Your task to perform on an android device: Find the nearest electronics store that's open now Image 0: 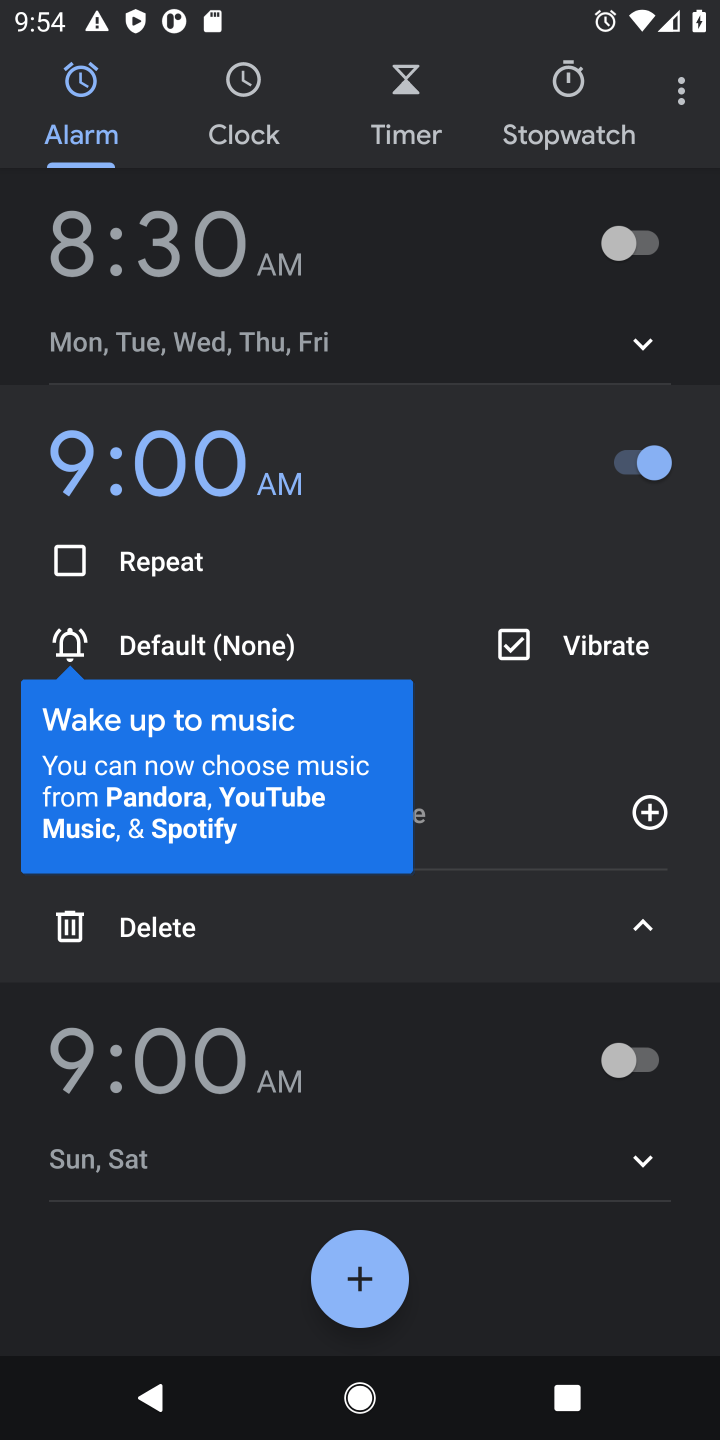
Step 0: press home button
Your task to perform on an android device: Find the nearest electronics store that's open now Image 1: 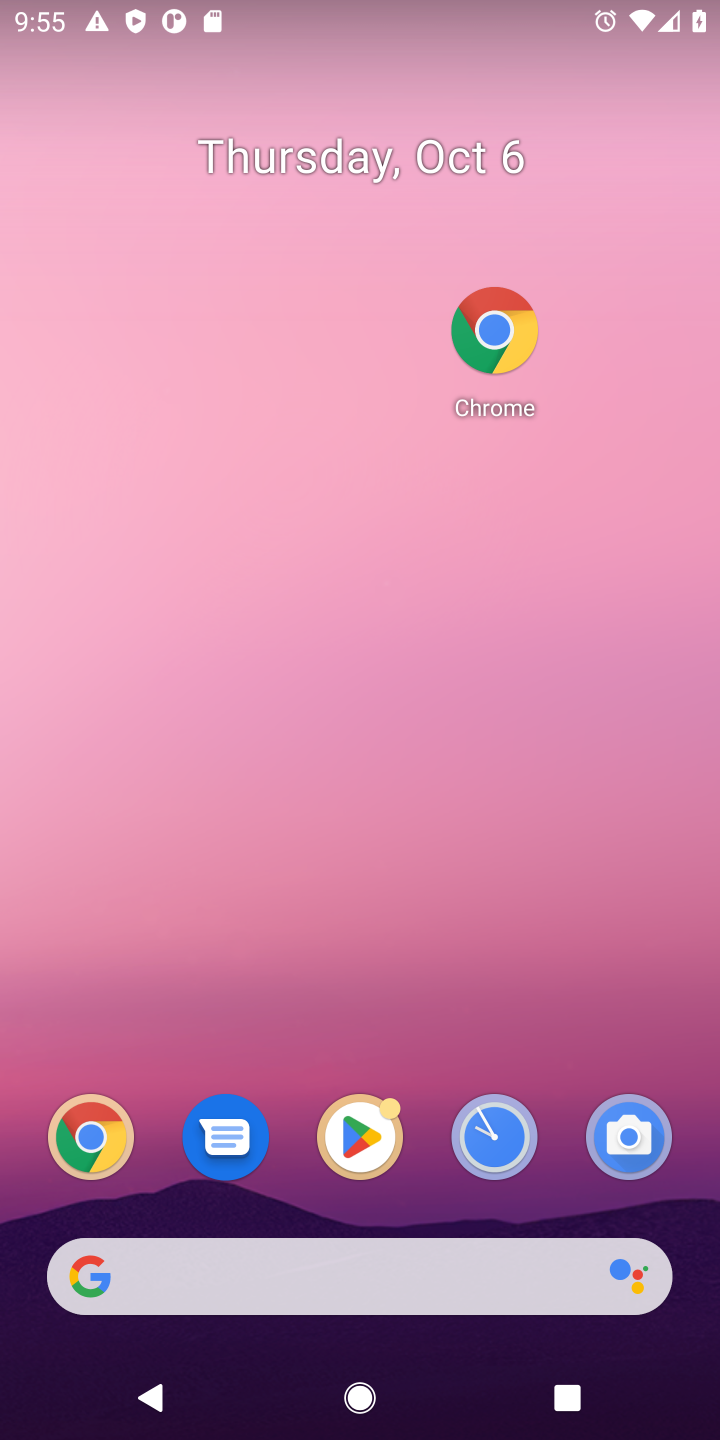
Step 1: click (92, 1139)
Your task to perform on an android device: Find the nearest electronics store that's open now Image 2: 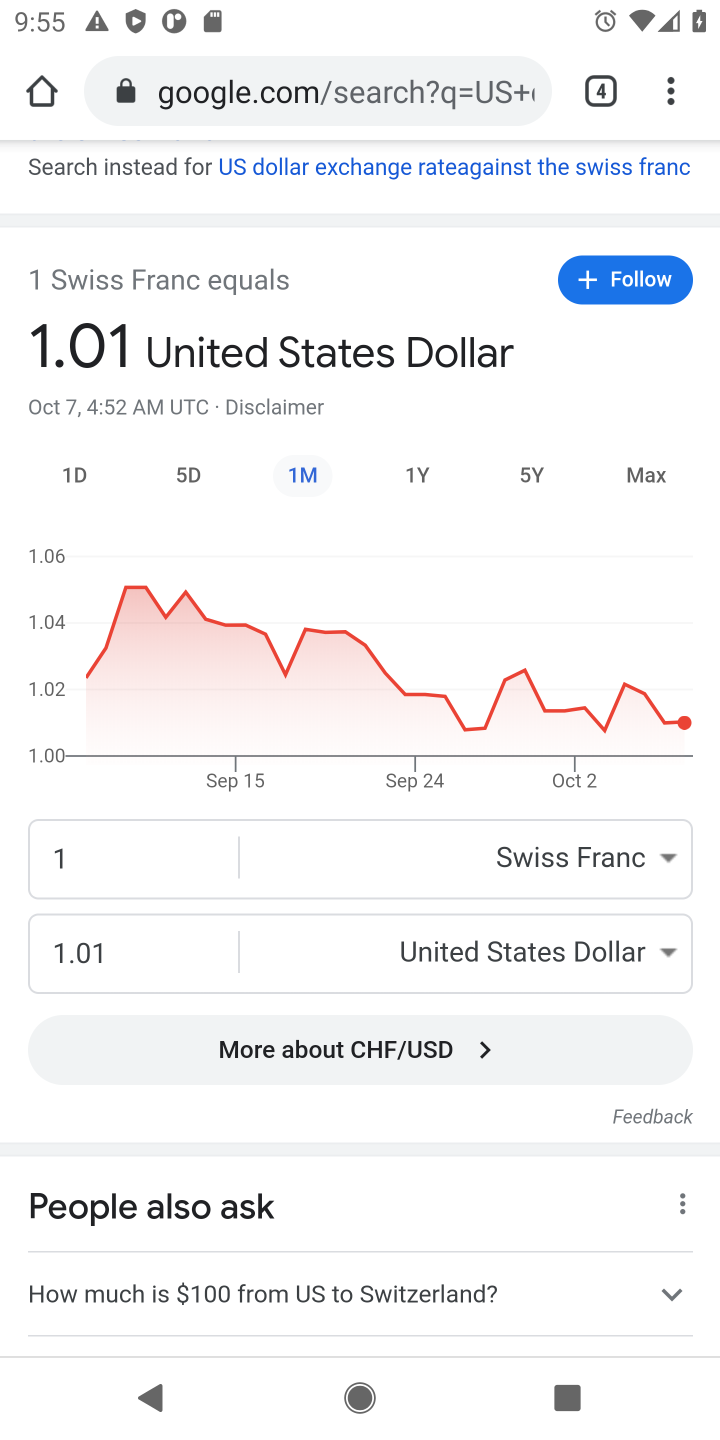
Step 2: click (335, 94)
Your task to perform on an android device: Find the nearest electronics store that's open now Image 3: 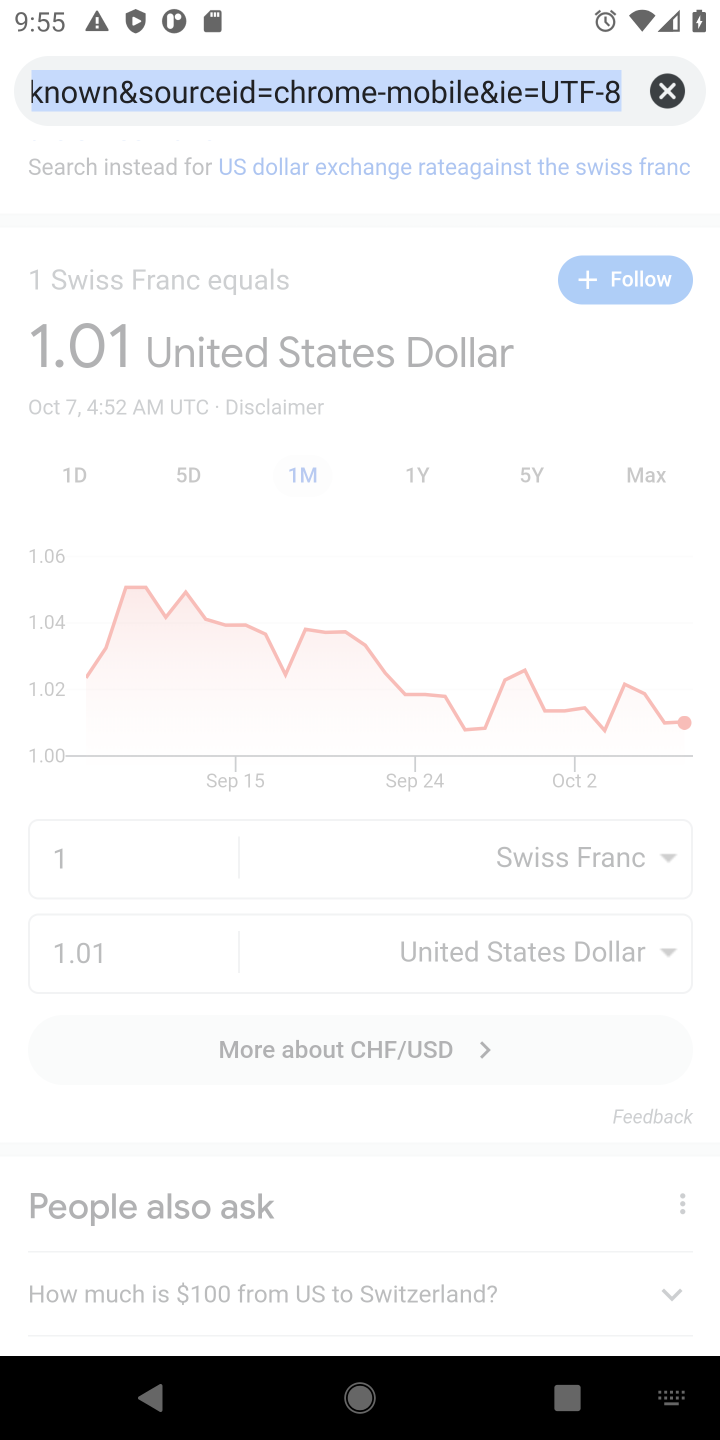
Step 3: click (652, 93)
Your task to perform on an android device: Find the nearest electronics store that's open now Image 4: 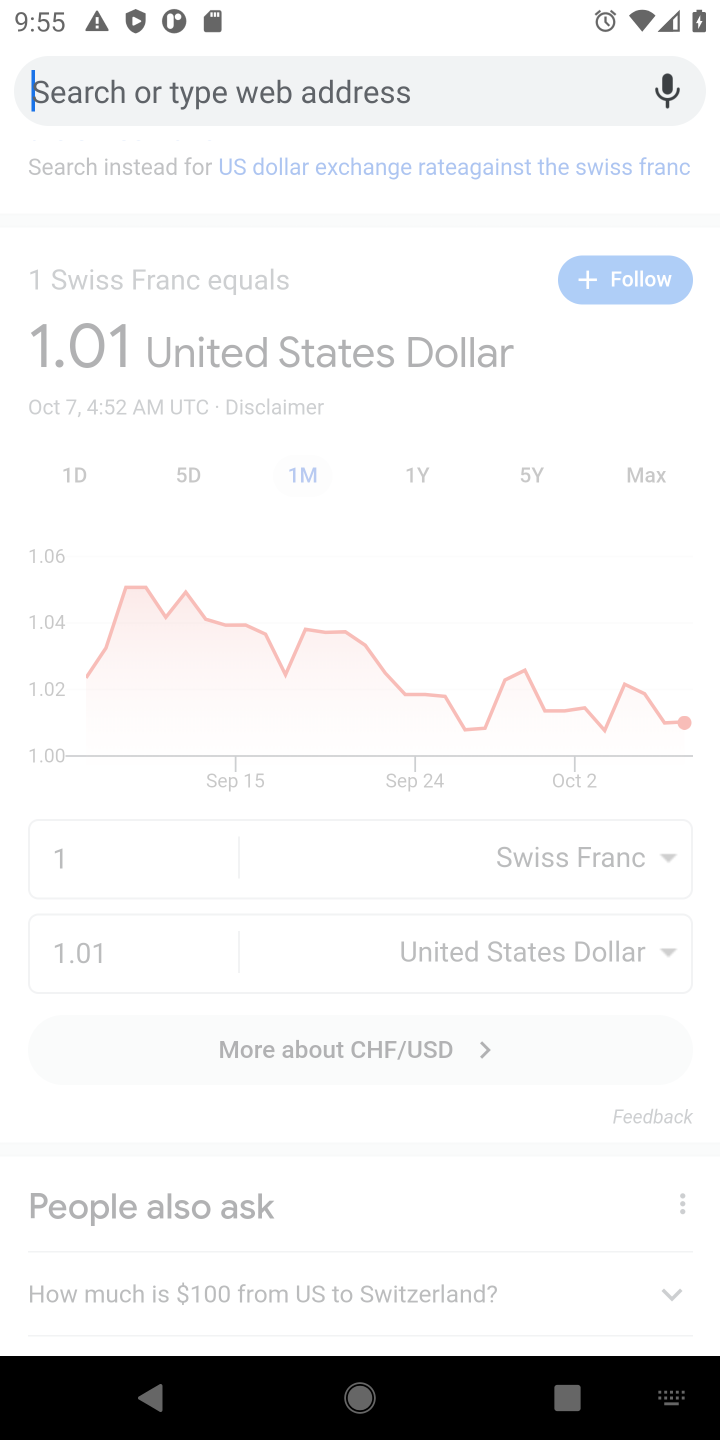
Step 4: type " nearest electronics store that's open now"
Your task to perform on an android device: Find the nearest electronics store that's open now Image 5: 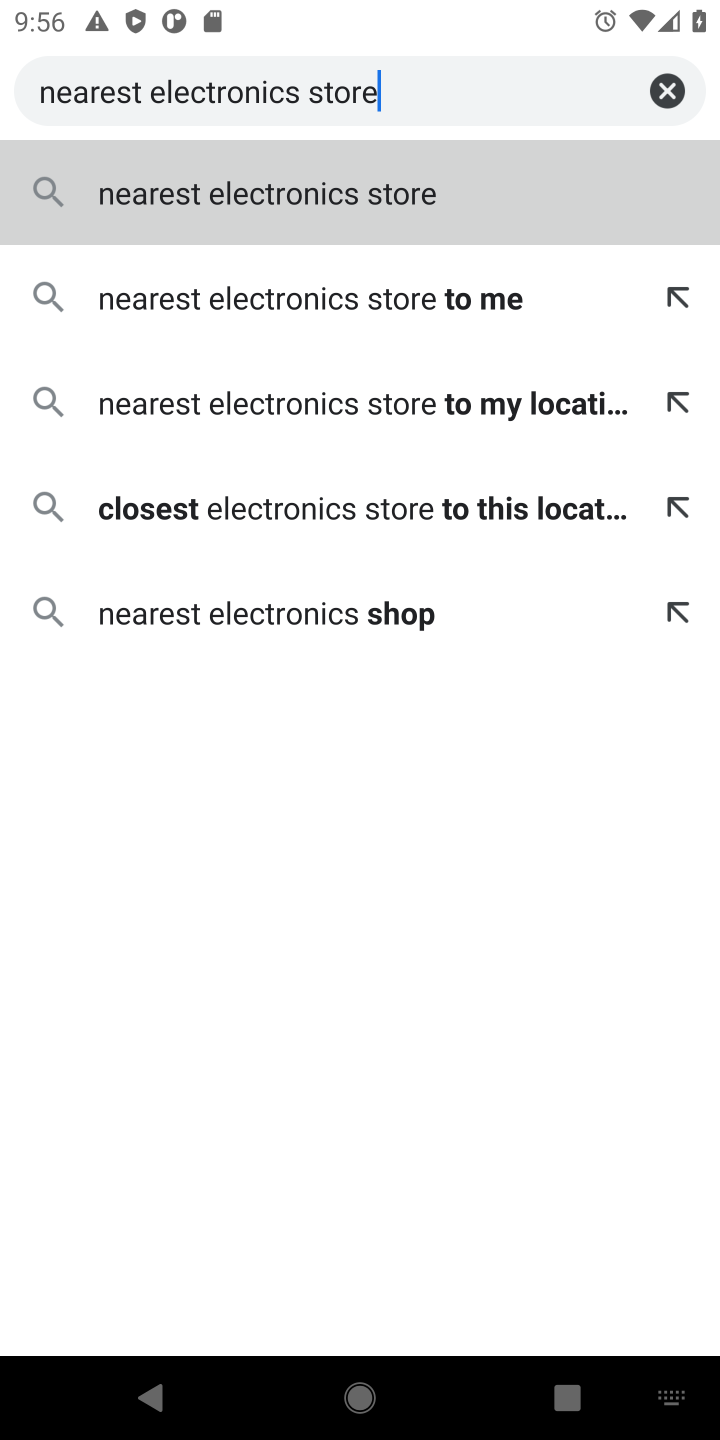
Step 5: click (287, 299)
Your task to perform on an android device: Find the nearest electronics store that's open now Image 6: 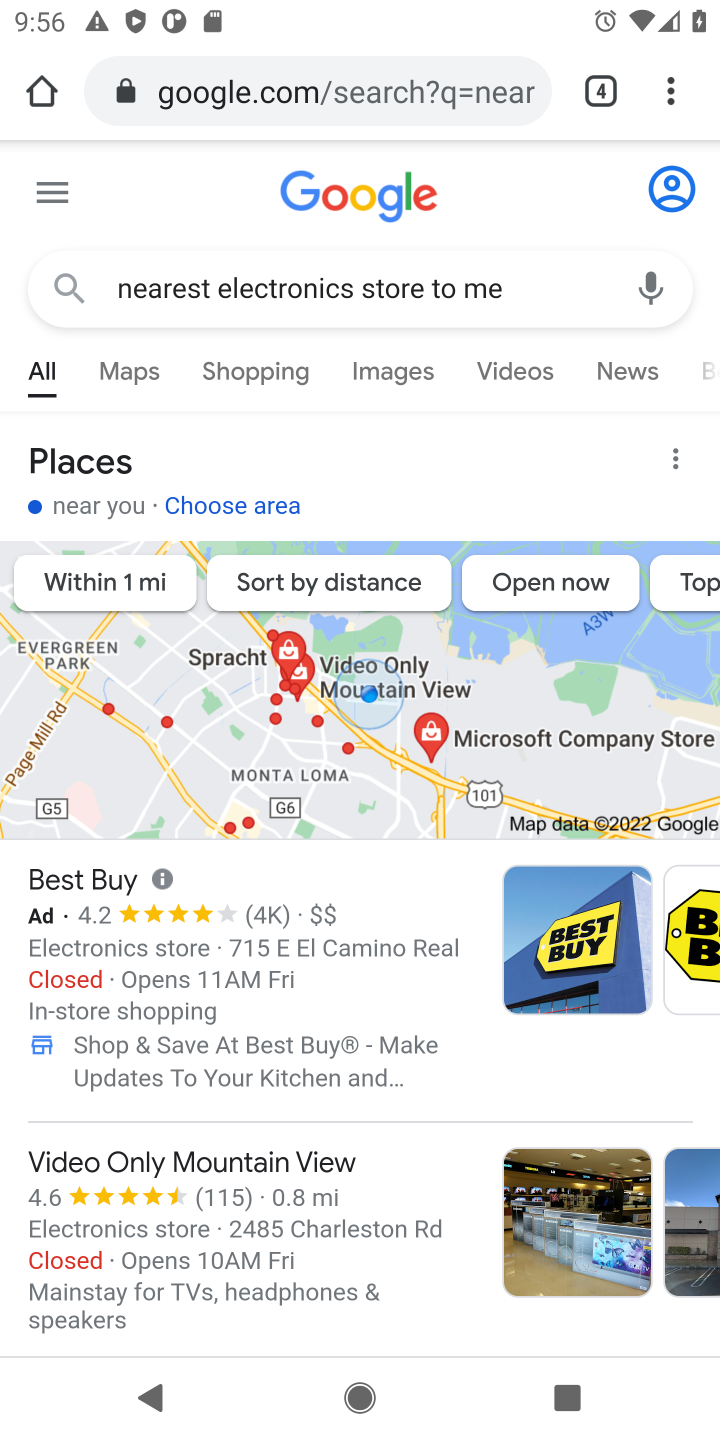
Step 6: drag from (258, 999) to (253, 396)
Your task to perform on an android device: Find the nearest electronics store that's open now Image 7: 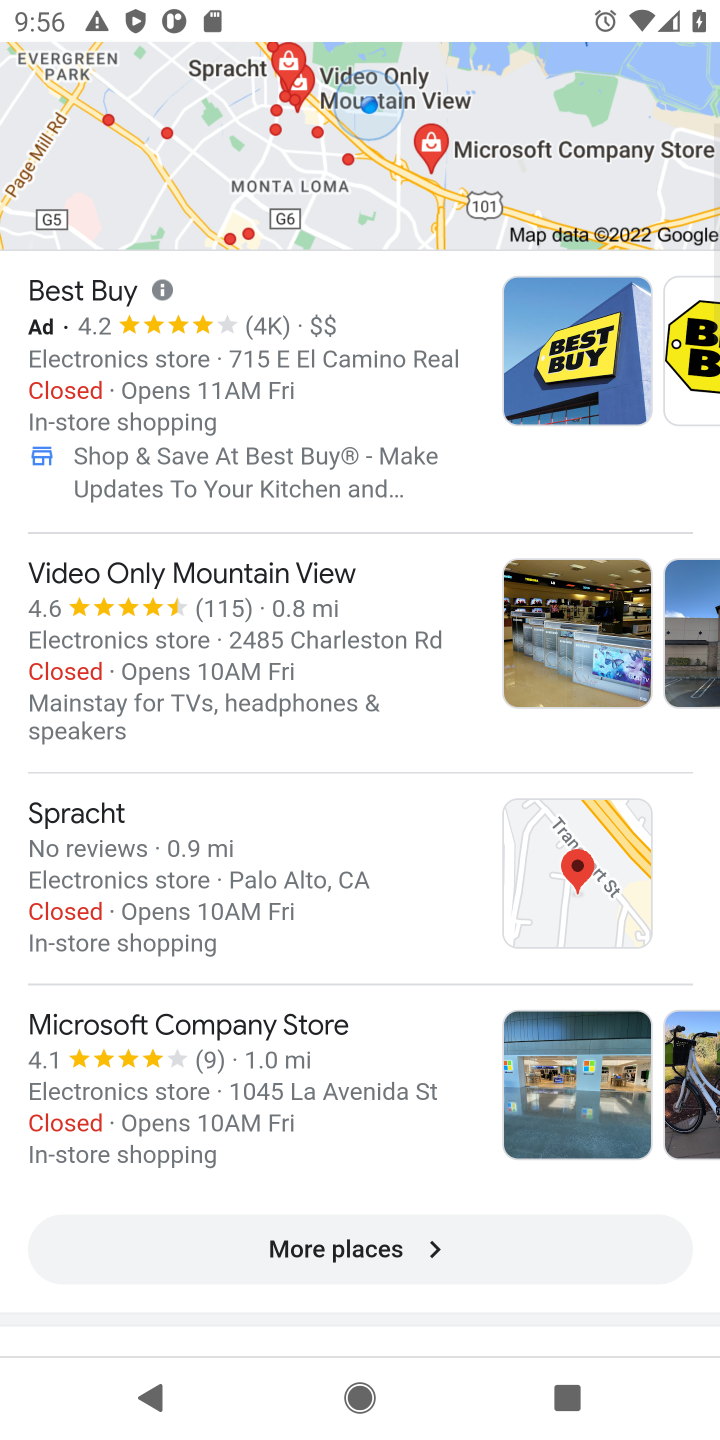
Step 7: drag from (233, 1014) to (262, 383)
Your task to perform on an android device: Find the nearest electronics store that's open now Image 8: 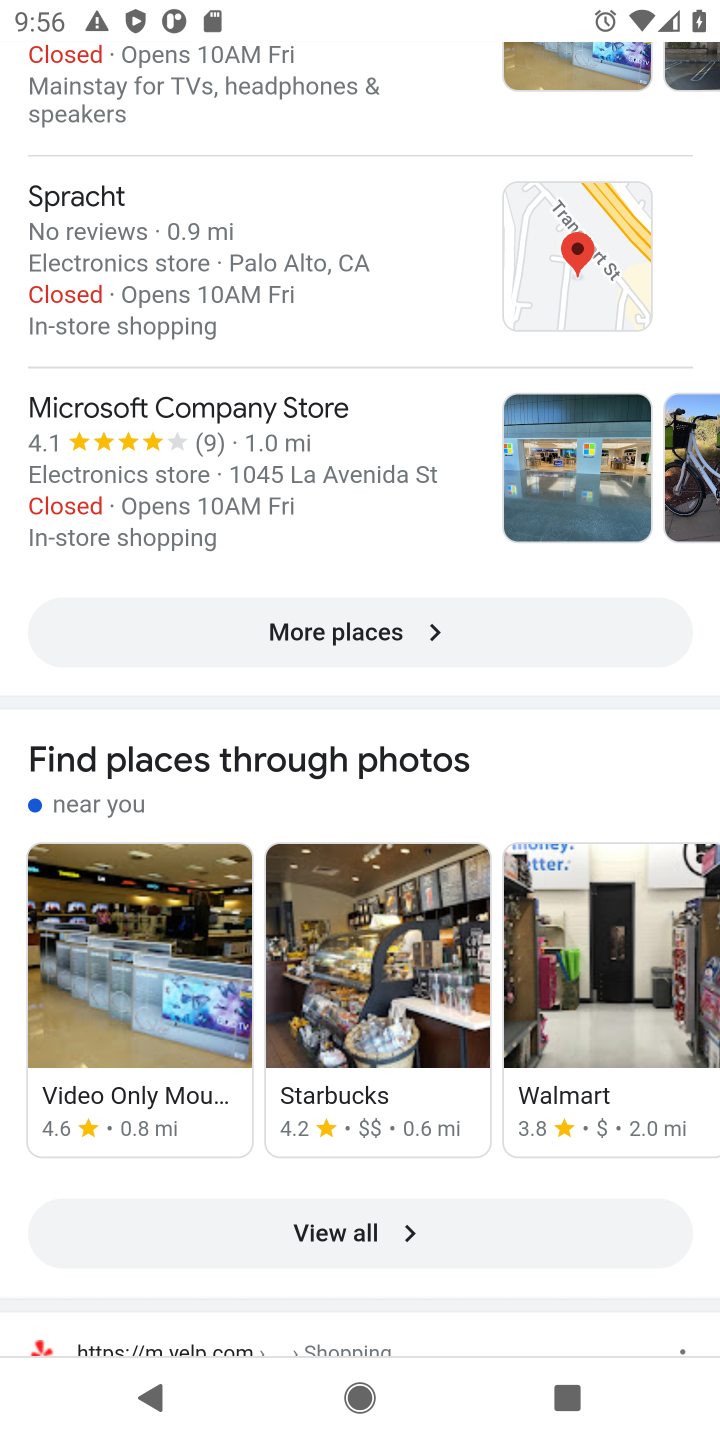
Step 8: click (298, 631)
Your task to perform on an android device: Find the nearest electronics store that's open now Image 9: 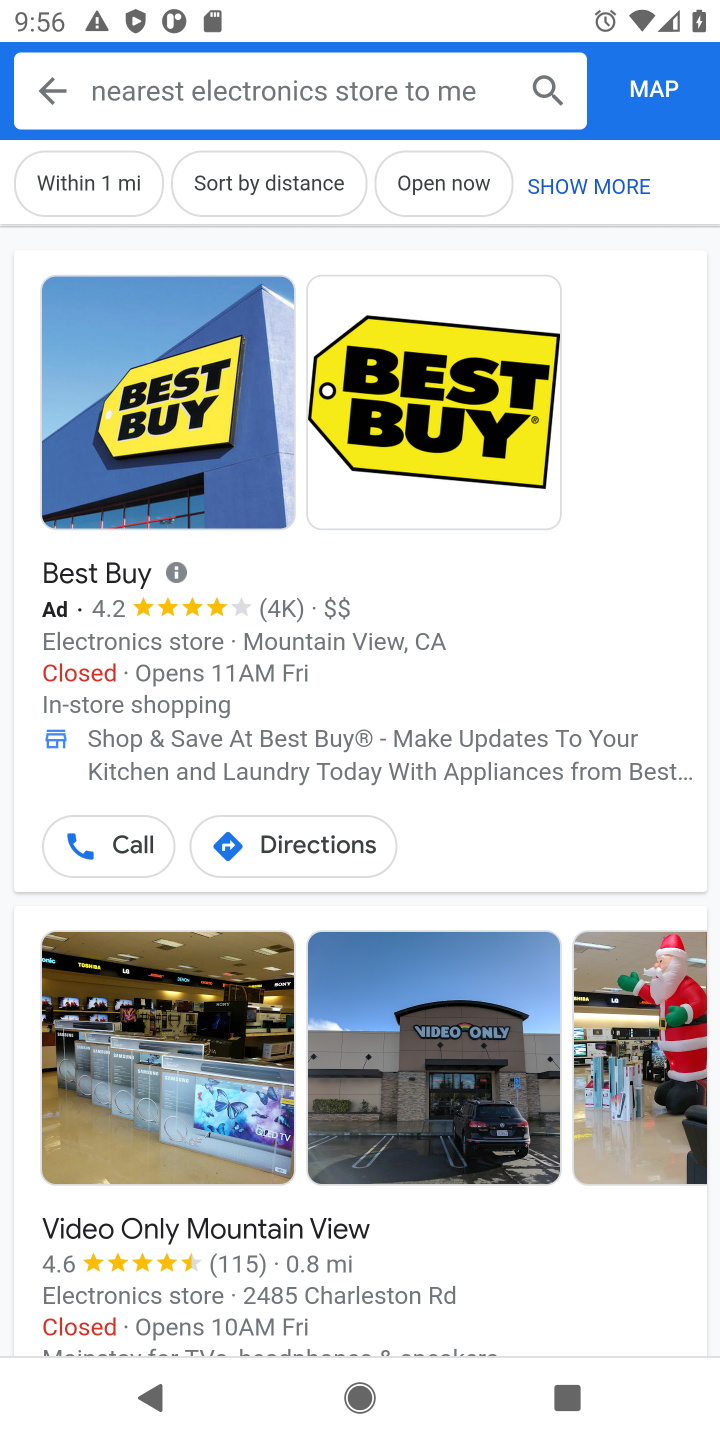
Step 9: drag from (188, 921) to (242, 231)
Your task to perform on an android device: Find the nearest electronics store that's open now Image 10: 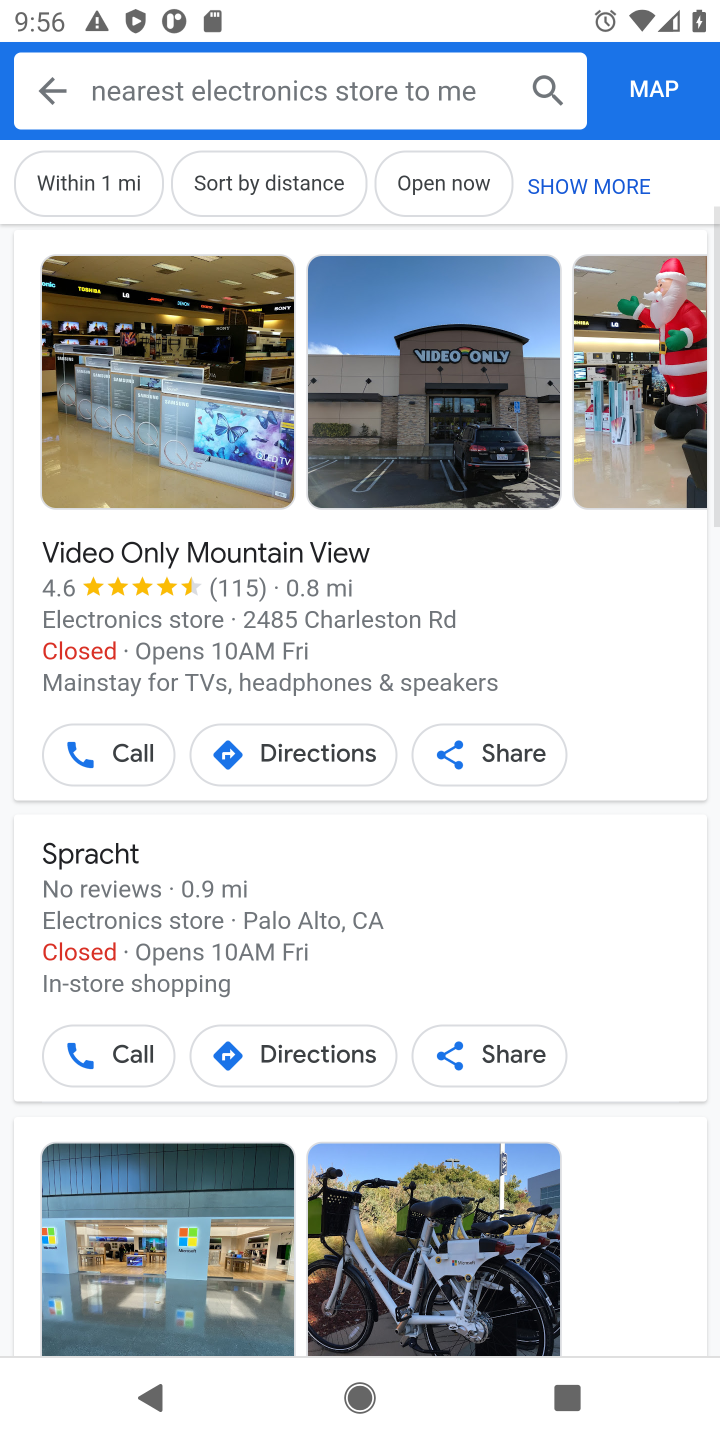
Step 10: drag from (206, 940) to (259, 420)
Your task to perform on an android device: Find the nearest electronics store that's open now Image 11: 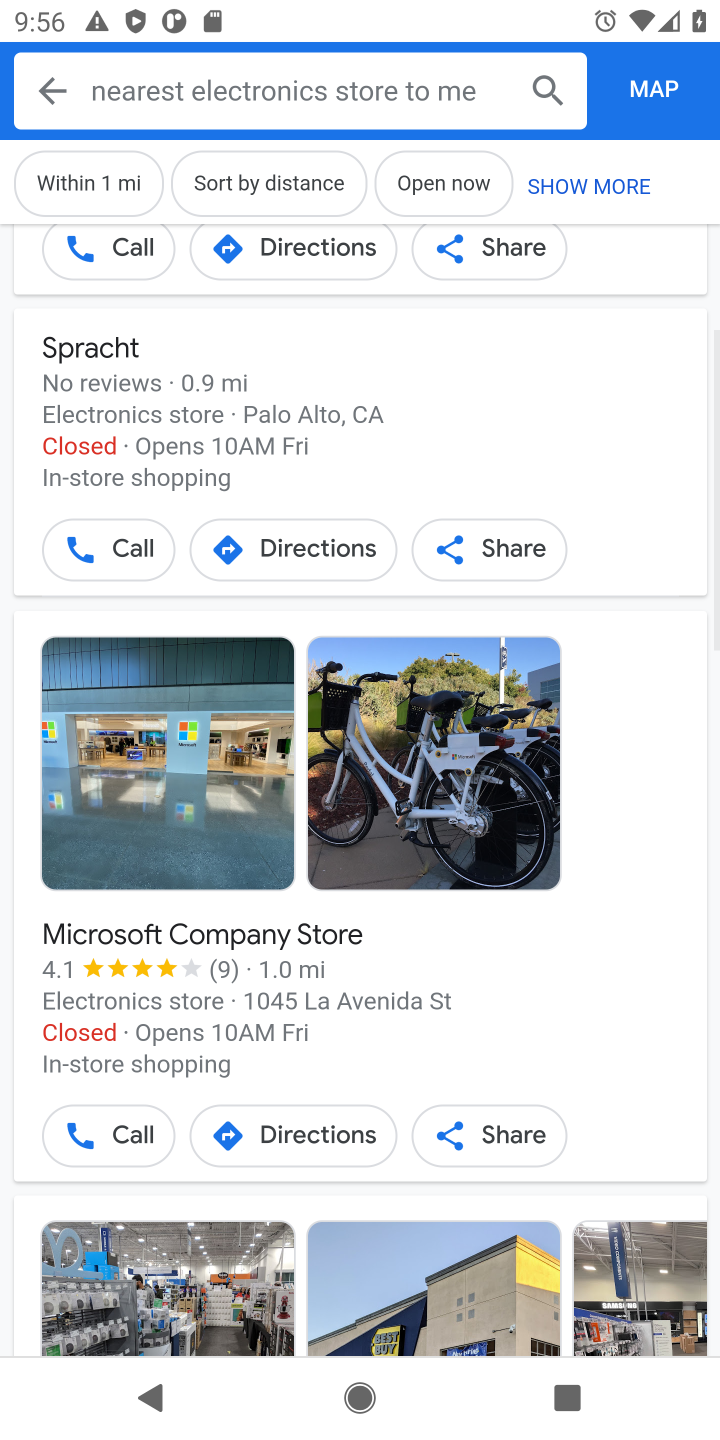
Step 11: drag from (224, 1010) to (272, 366)
Your task to perform on an android device: Find the nearest electronics store that's open now Image 12: 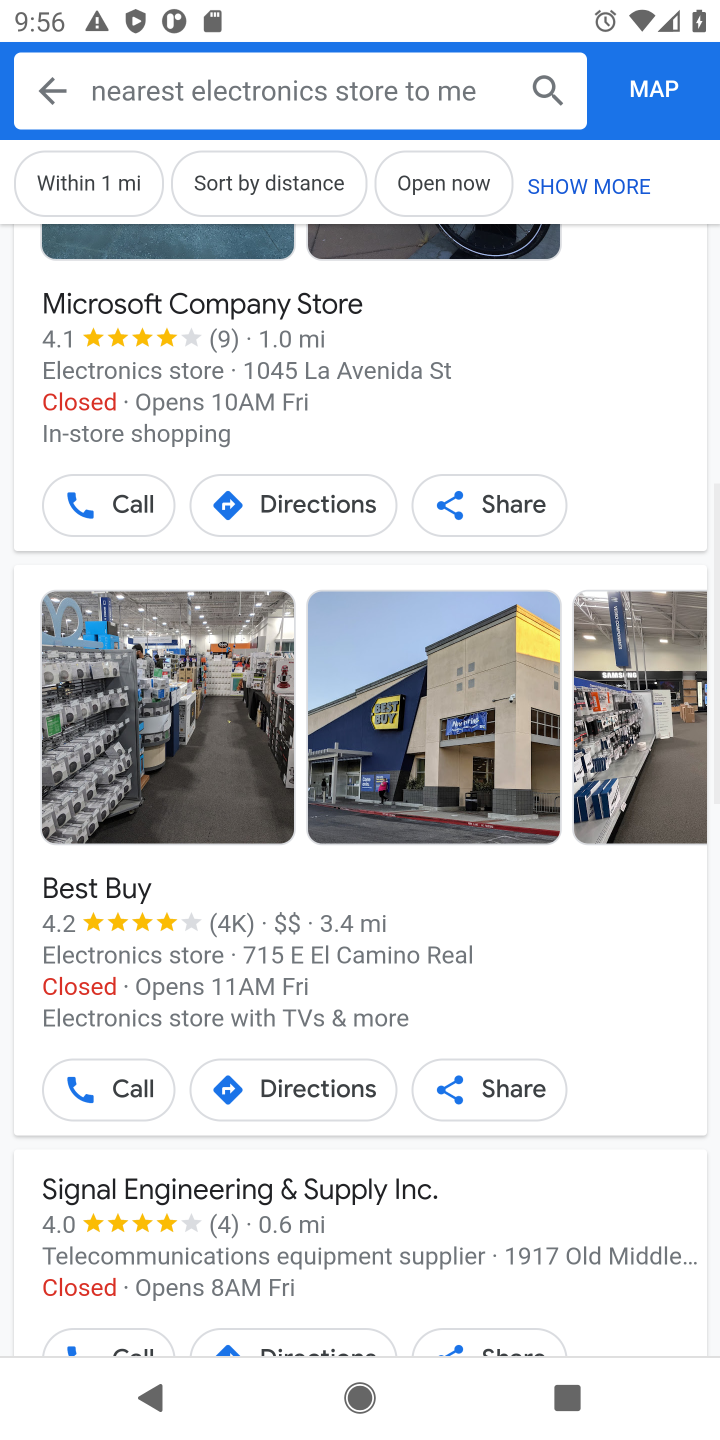
Step 12: drag from (246, 1037) to (265, 500)
Your task to perform on an android device: Find the nearest electronics store that's open now Image 13: 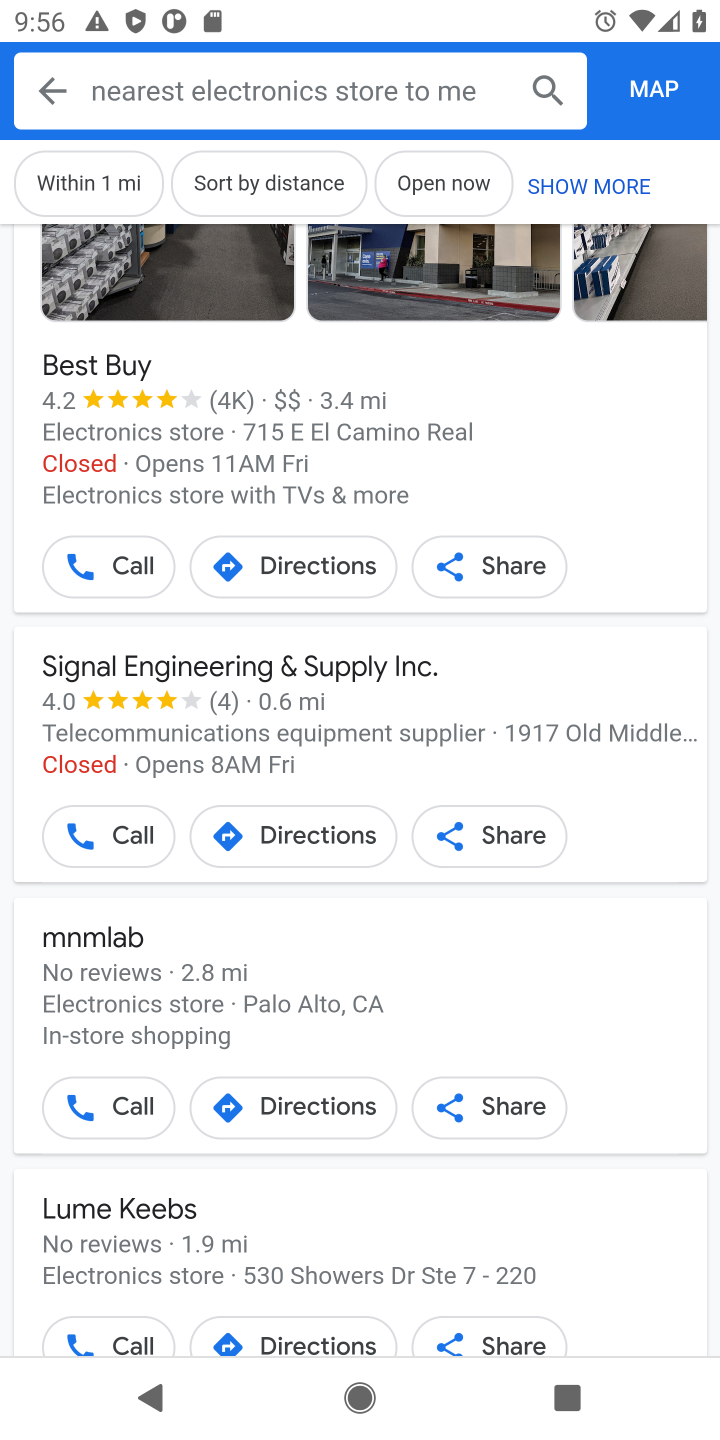
Step 13: drag from (225, 1026) to (262, 526)
Your task to perform on an android device: Find the nearest electronics store that's open now Image 14: 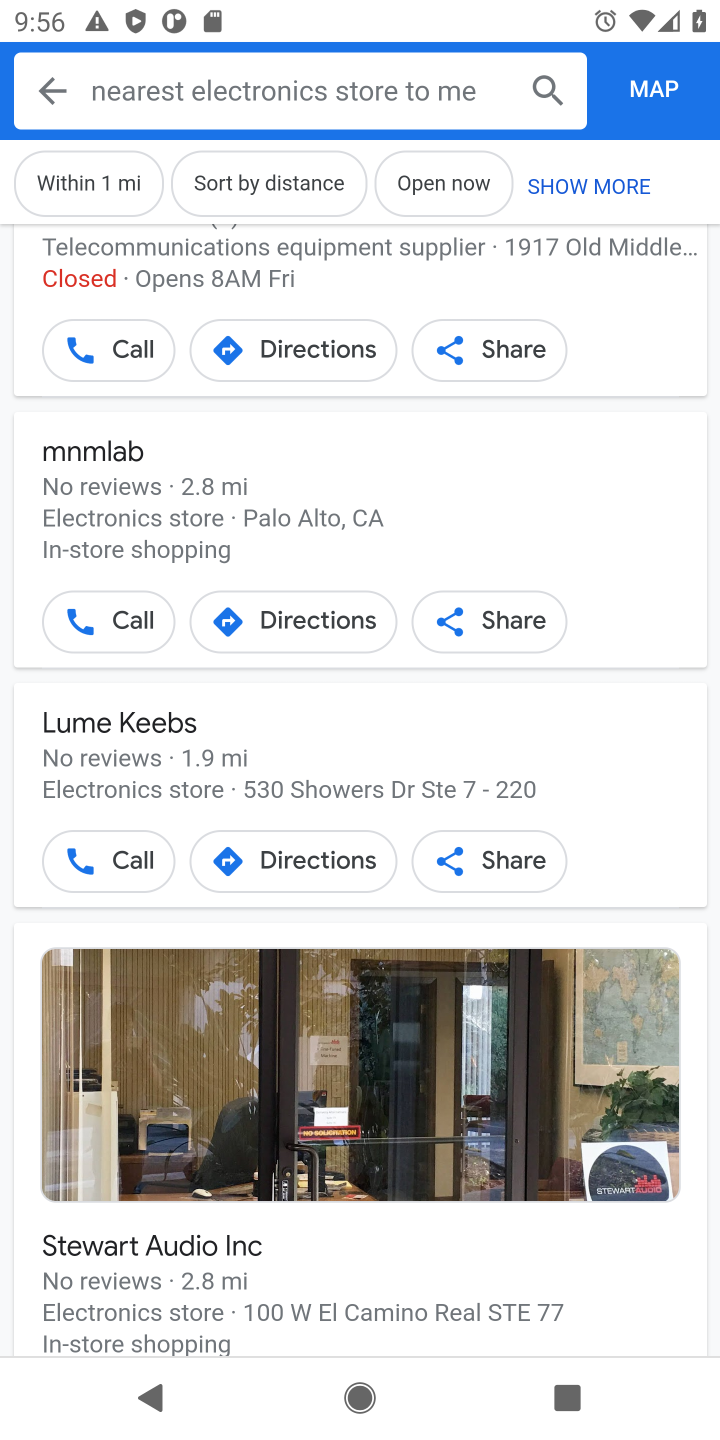
Step 14: drag from (212, 1113) to (254, 459)
Your task to perform on an android device: Find the nearest electronics store that's open now Image 15: 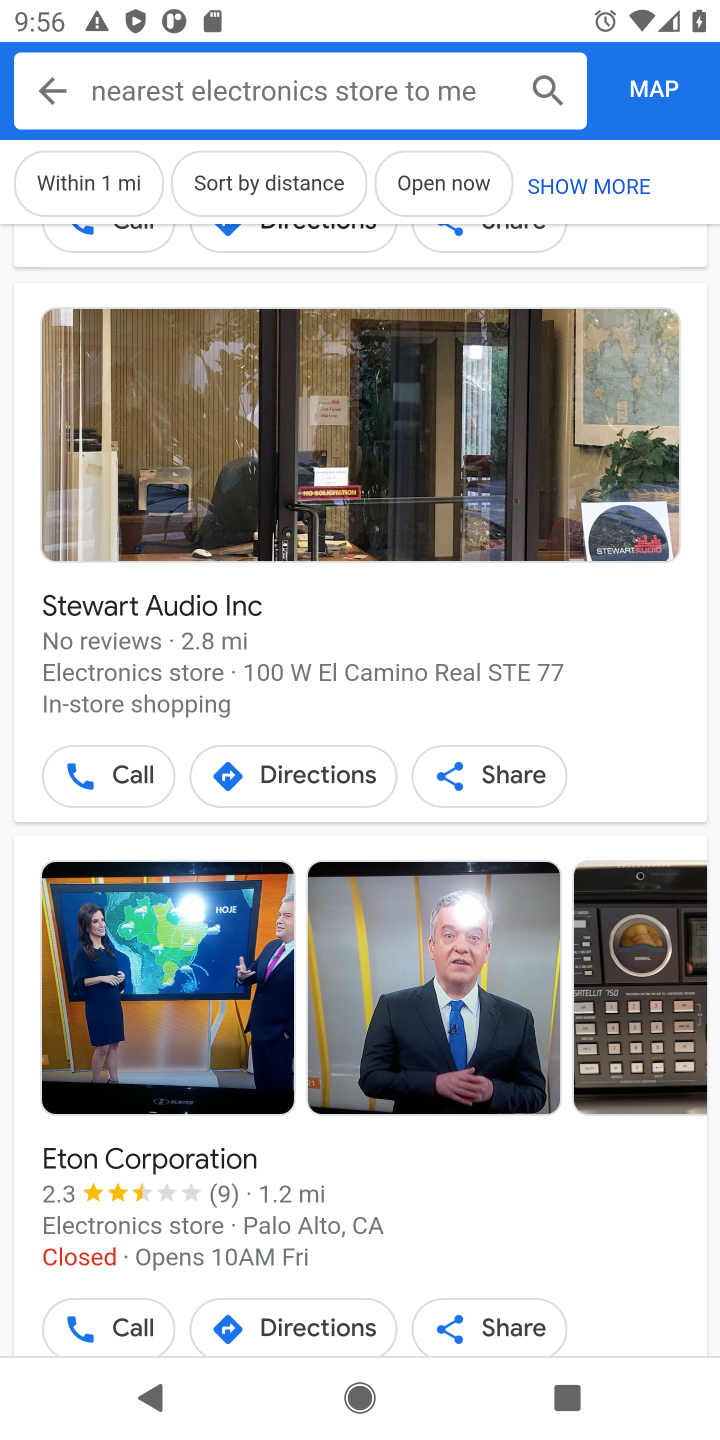
Step 15: drag from (178, 1035) to (198, 481)
Your task to perform on an android device: Find the nearest electronics store that's open now Image 16: 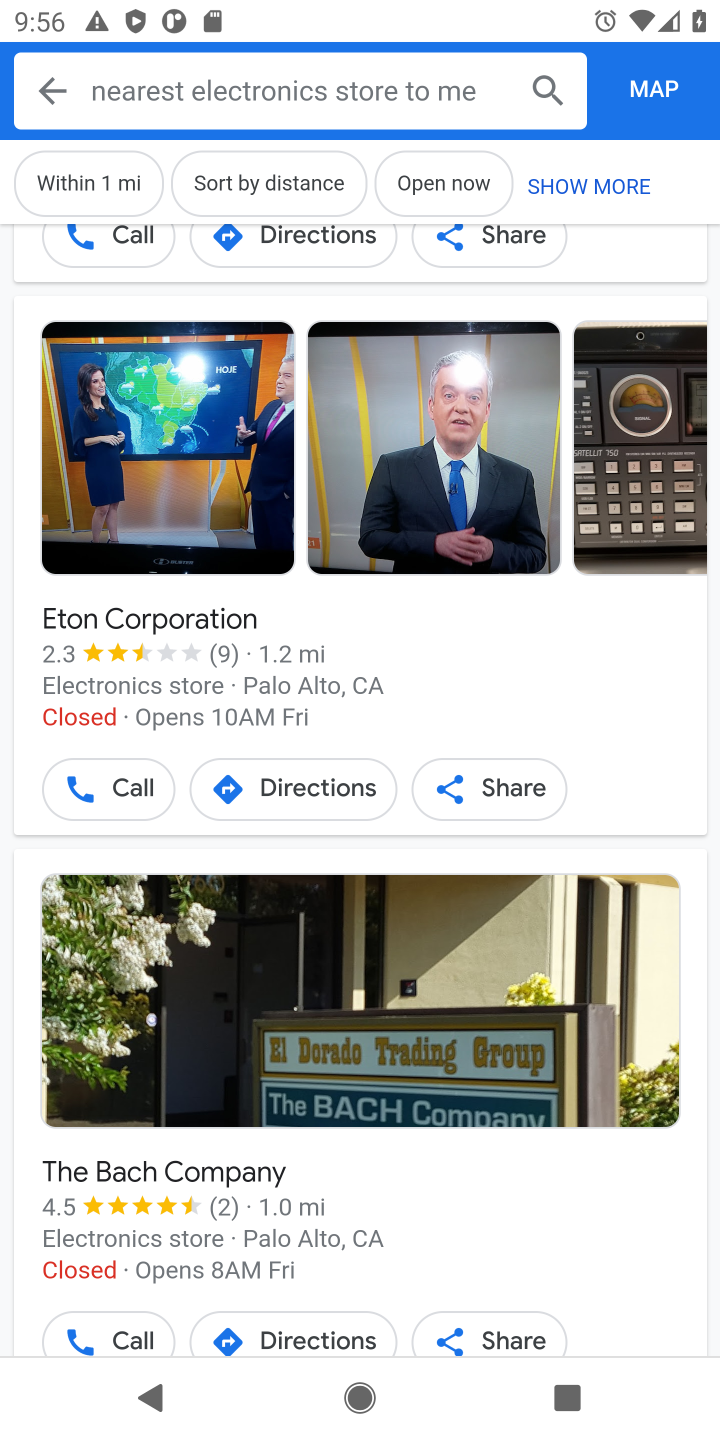
Step 16: drag from (181, 1200) to (187, 517)
Your task to perform on an android device: Find the nearest electronics store that's open now Image 17: 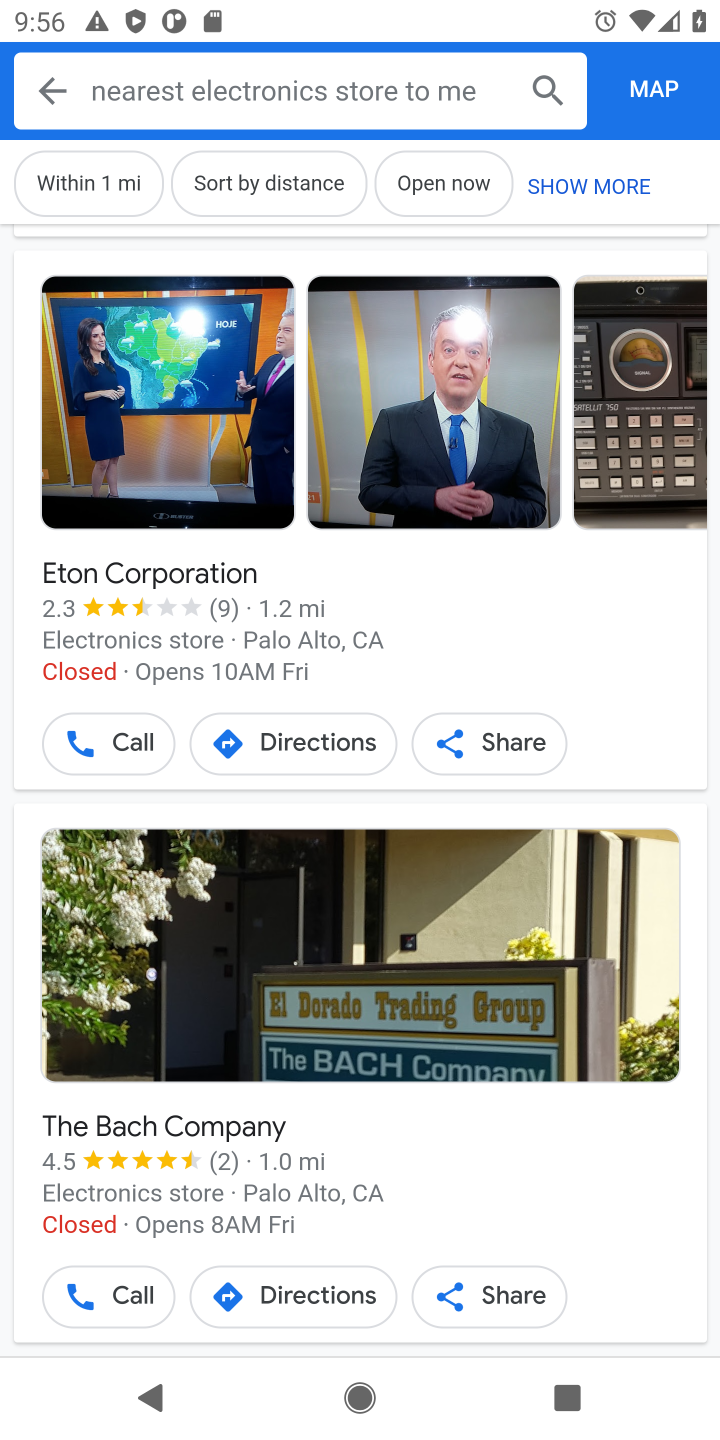
Step 17: click (484, 93)
Your task to perform on an android device: Find the nearest electronics store that's open now Image 18: 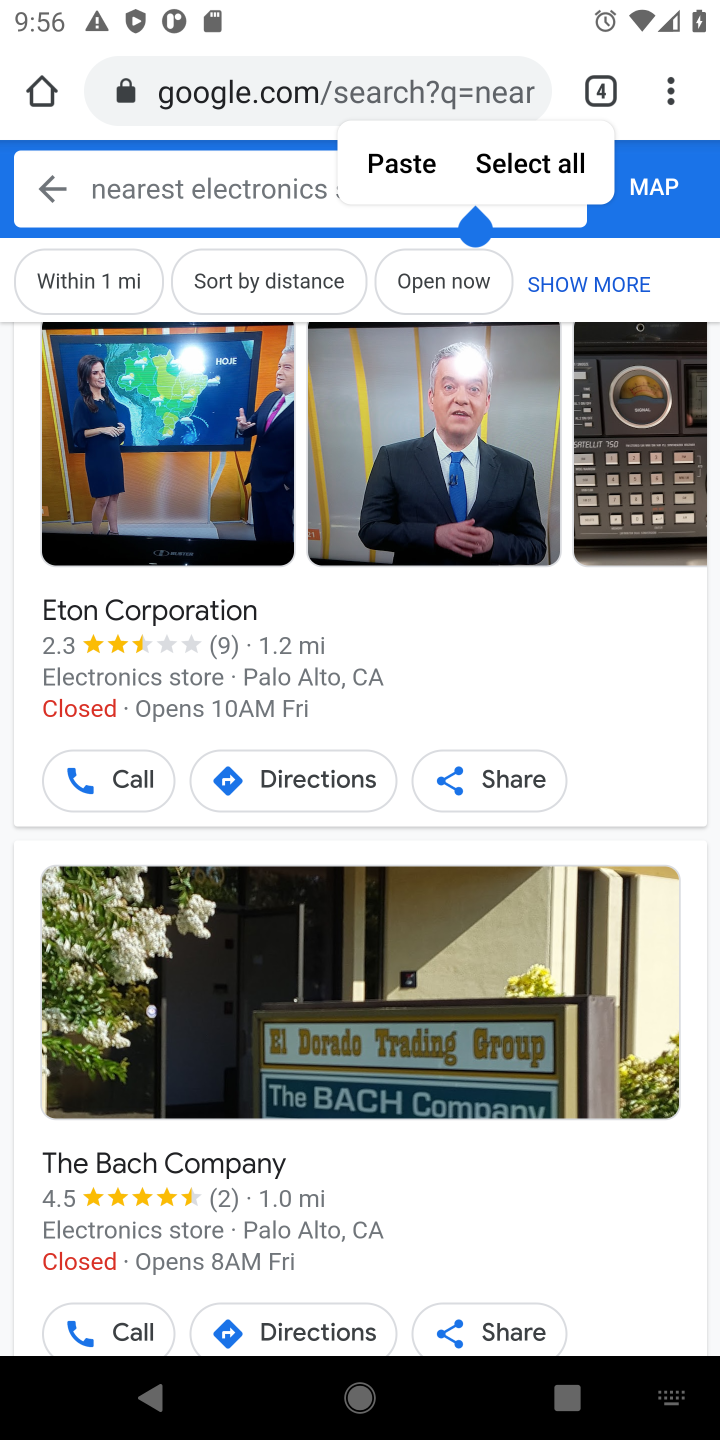
Step 18: click (259, 189)
Your task to perform on an android device: Find the nearest electronics store that's open now Image 19: 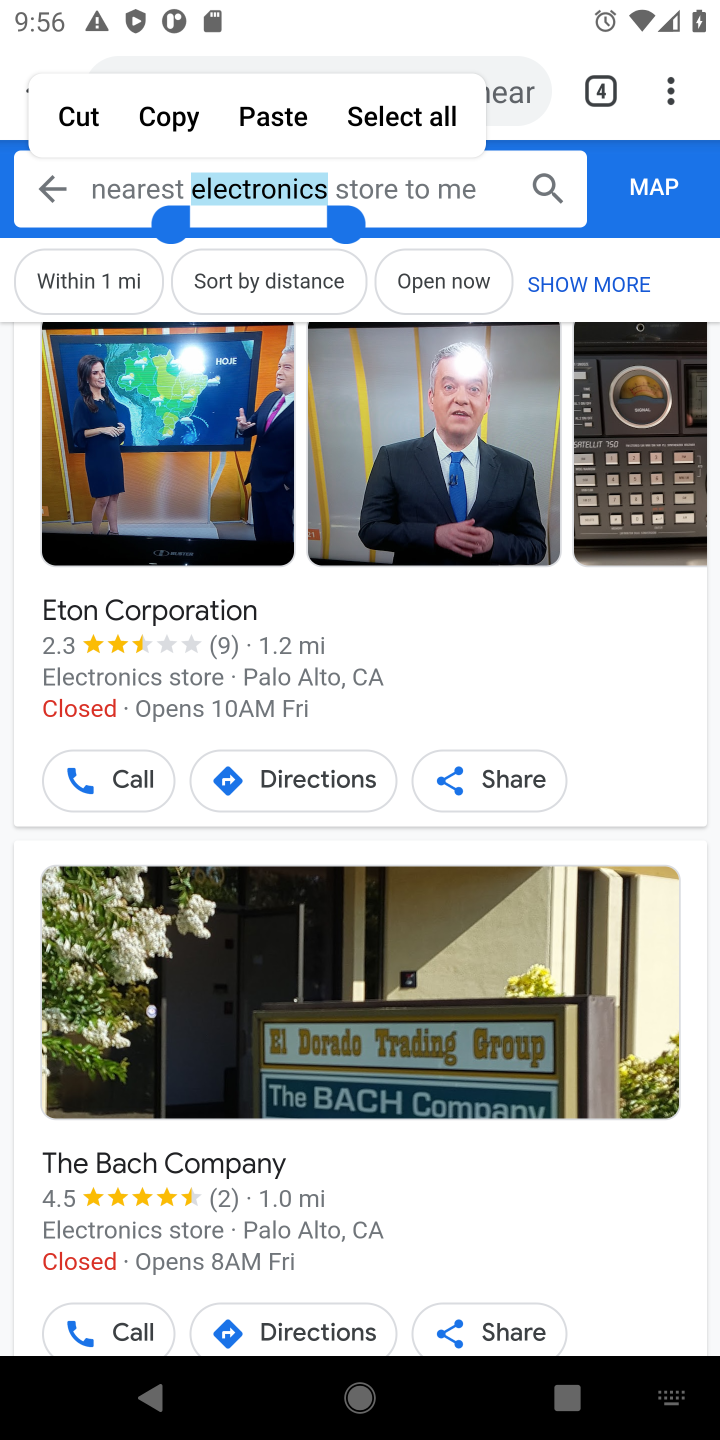
Step 19: click (492, 197)
Your task to perform on an android device: Find the nearest electronics store that's open now Image 20: 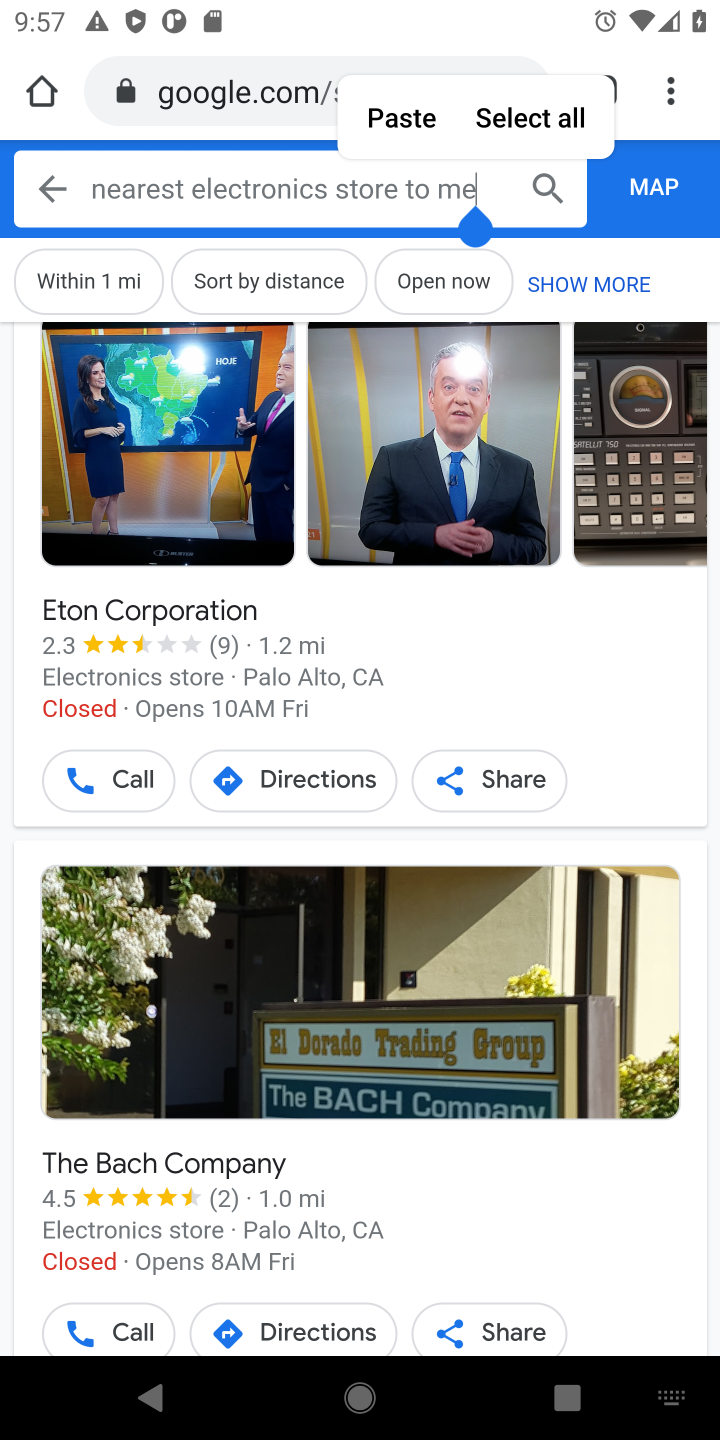
Step 20: type " that's open now"
Your task to perform on an android device: Find the nearest electronics store that's open now Image 21: 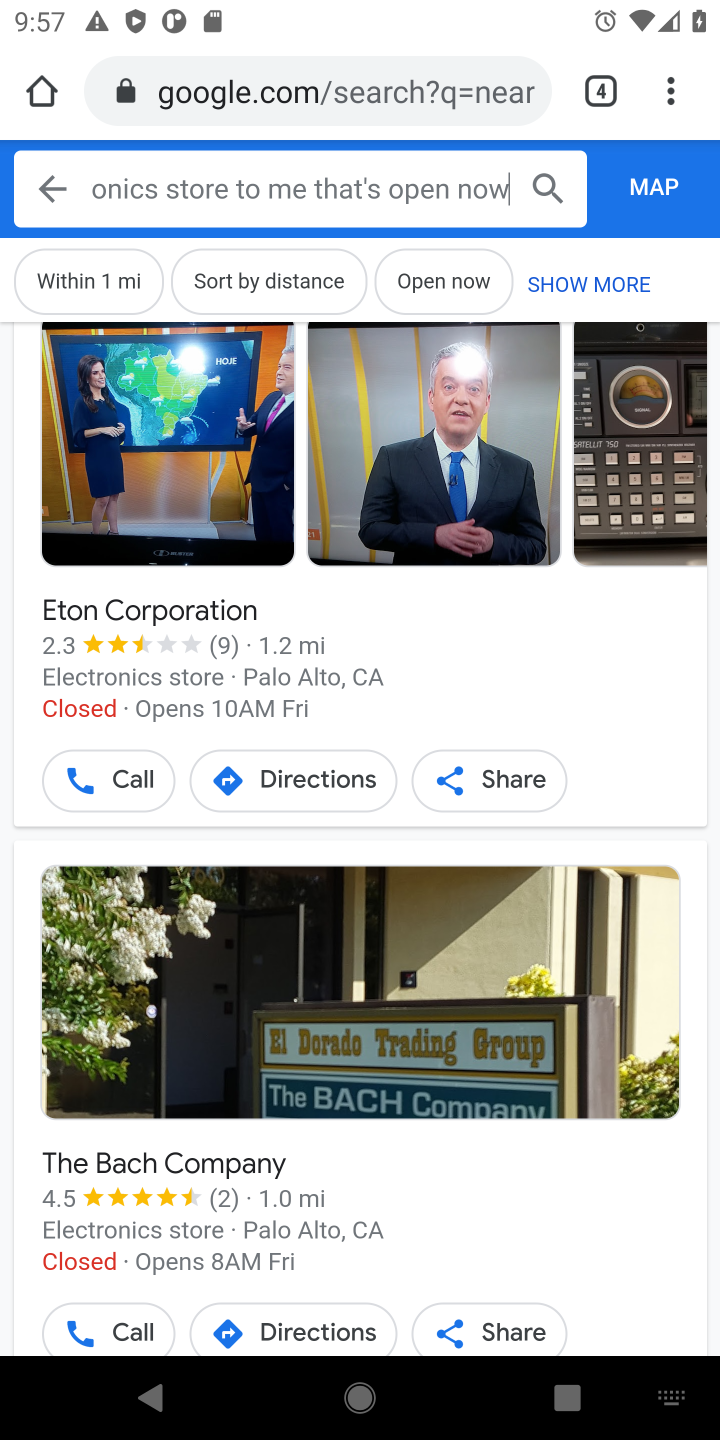
Step 21: click (561, 192)
Your task to perform on an android device: Find the nearest electronics store that's open now Image 22: 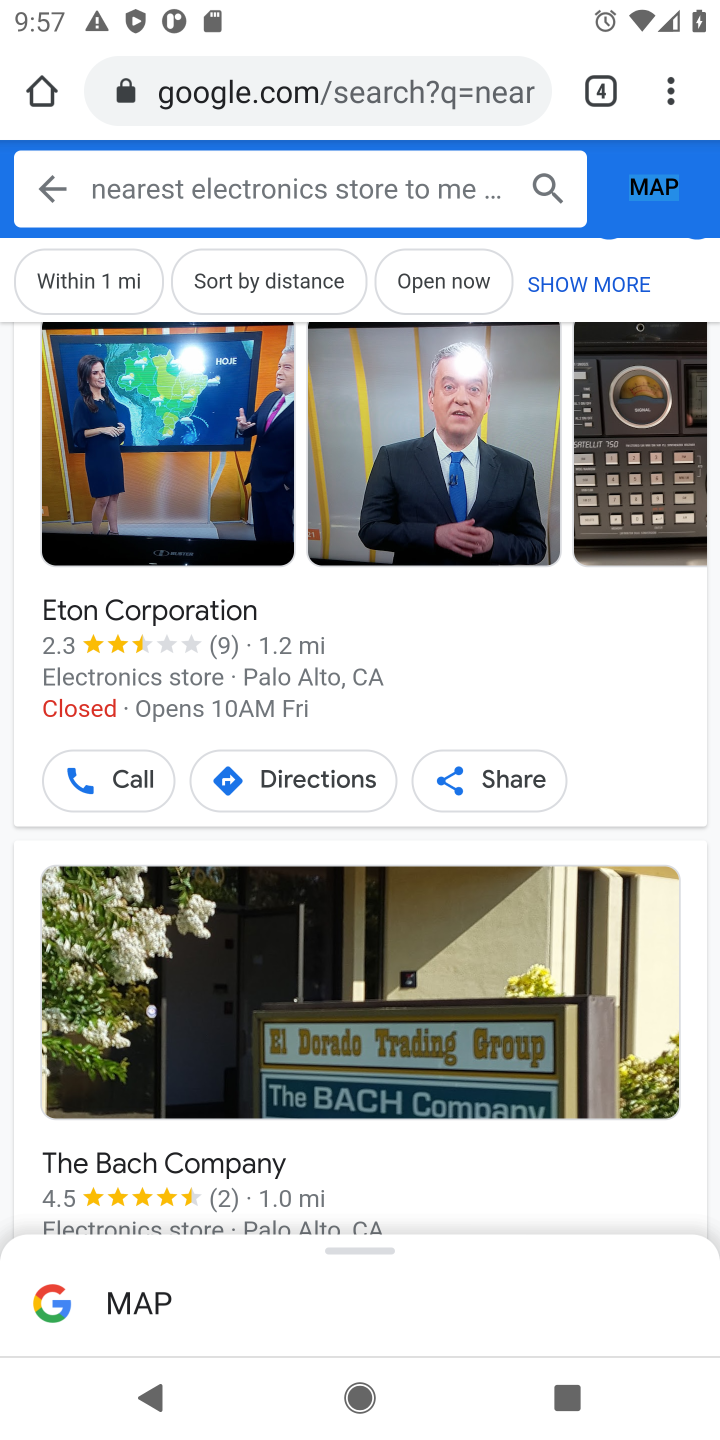
Step 22: click (555, 181)
Your task to perform on an android device: Find the nearest electronics store that's open now Image 23: 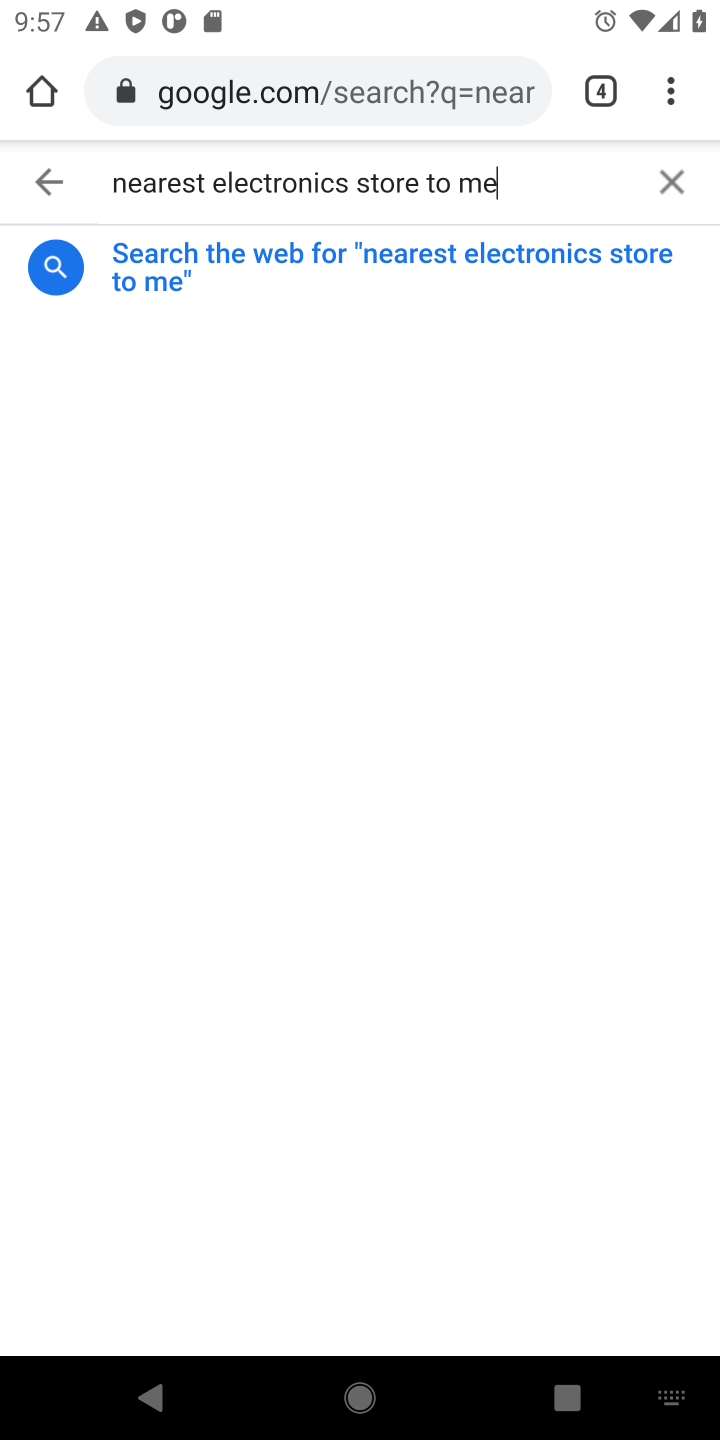
Step 23: click (469, 257)
Your task to perform on an android device: Find the nearest electronics store that's open now Image 24: 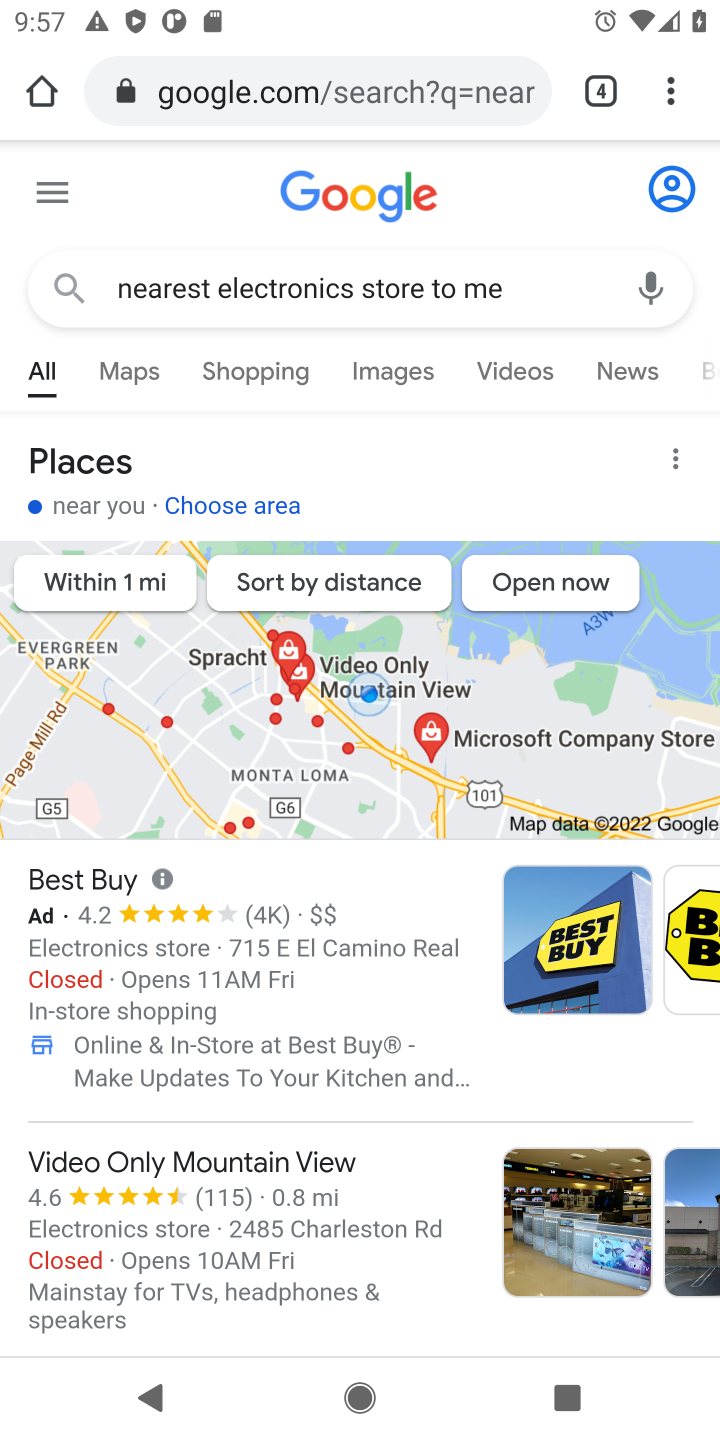
Step 24: click (510, 293)
Your task to perform on an android device: Find the nearest electronics store that's open now Image 25: 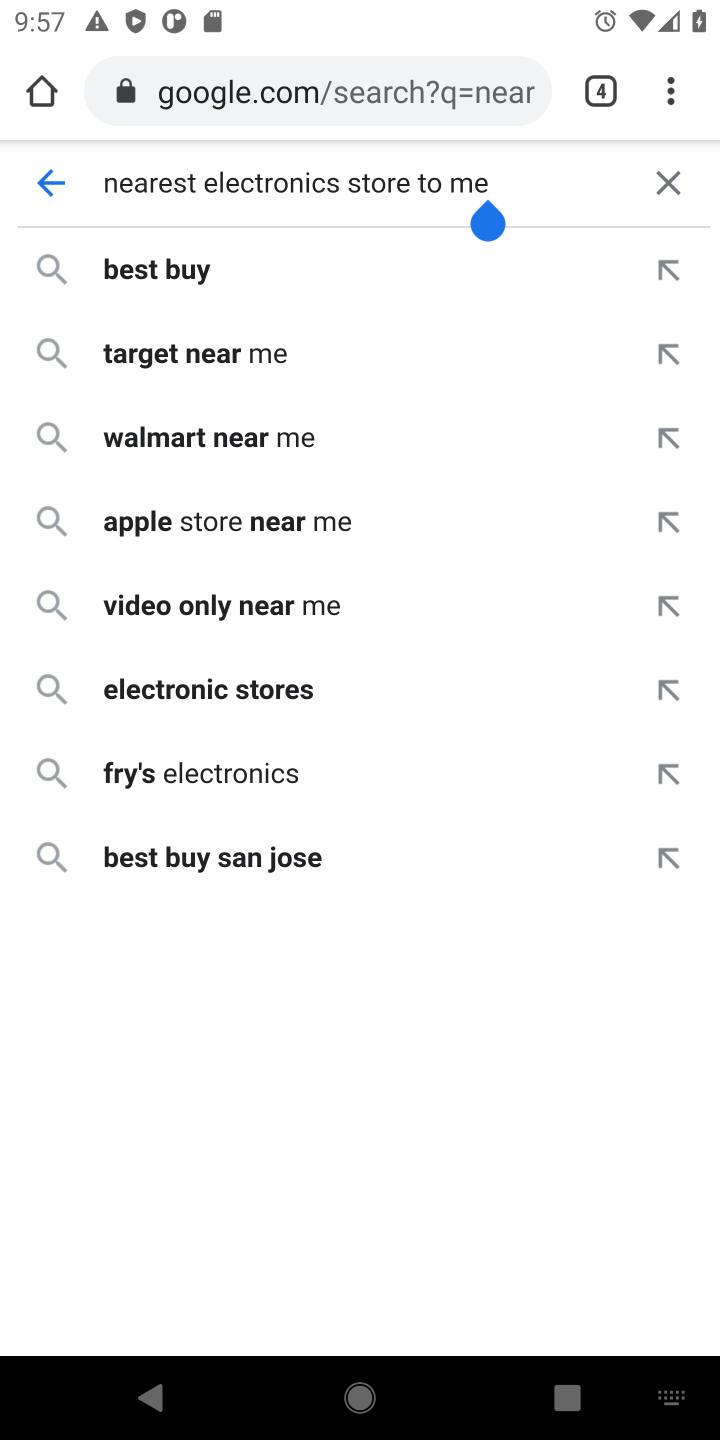
Step 25: type "  open now"
Your task to perform on an android device: Find the nearest electronics store that's open now Image 26: 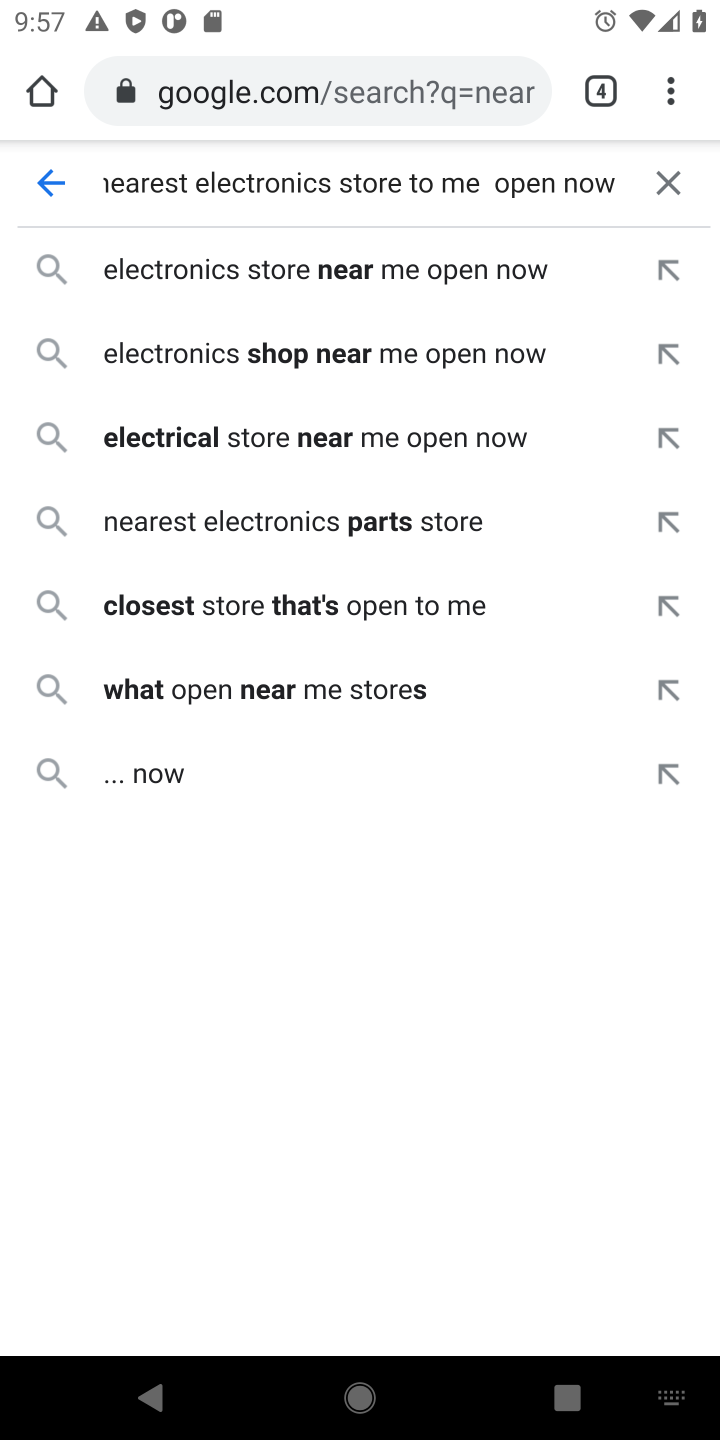
Step 26: click (486, 278)
Your task to perform on an android device: Find the nearest electronics store that's open now Image 27: 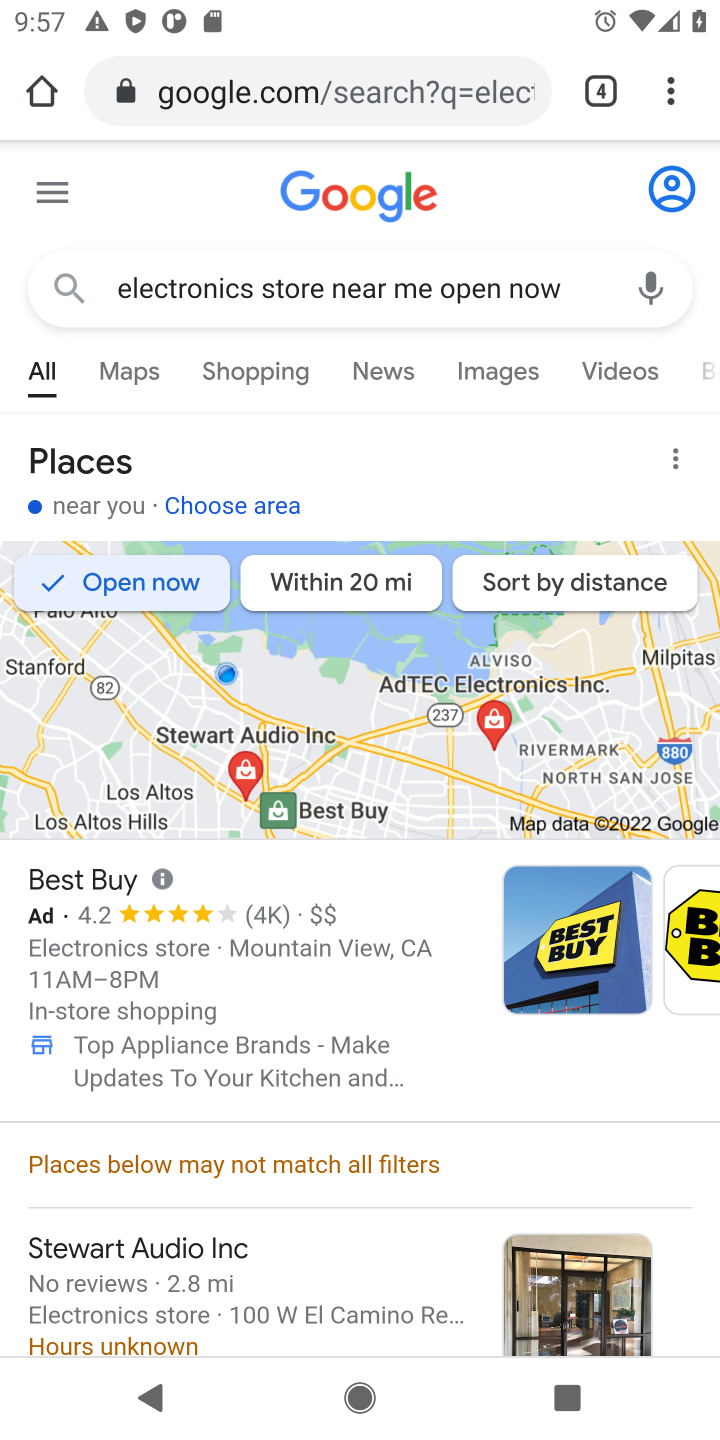
Step 27: task complete